Your task to perform on an android device: Search for usb-a on amazon.com, select the first entry, add it to the cart, then select checkout. Image 0: 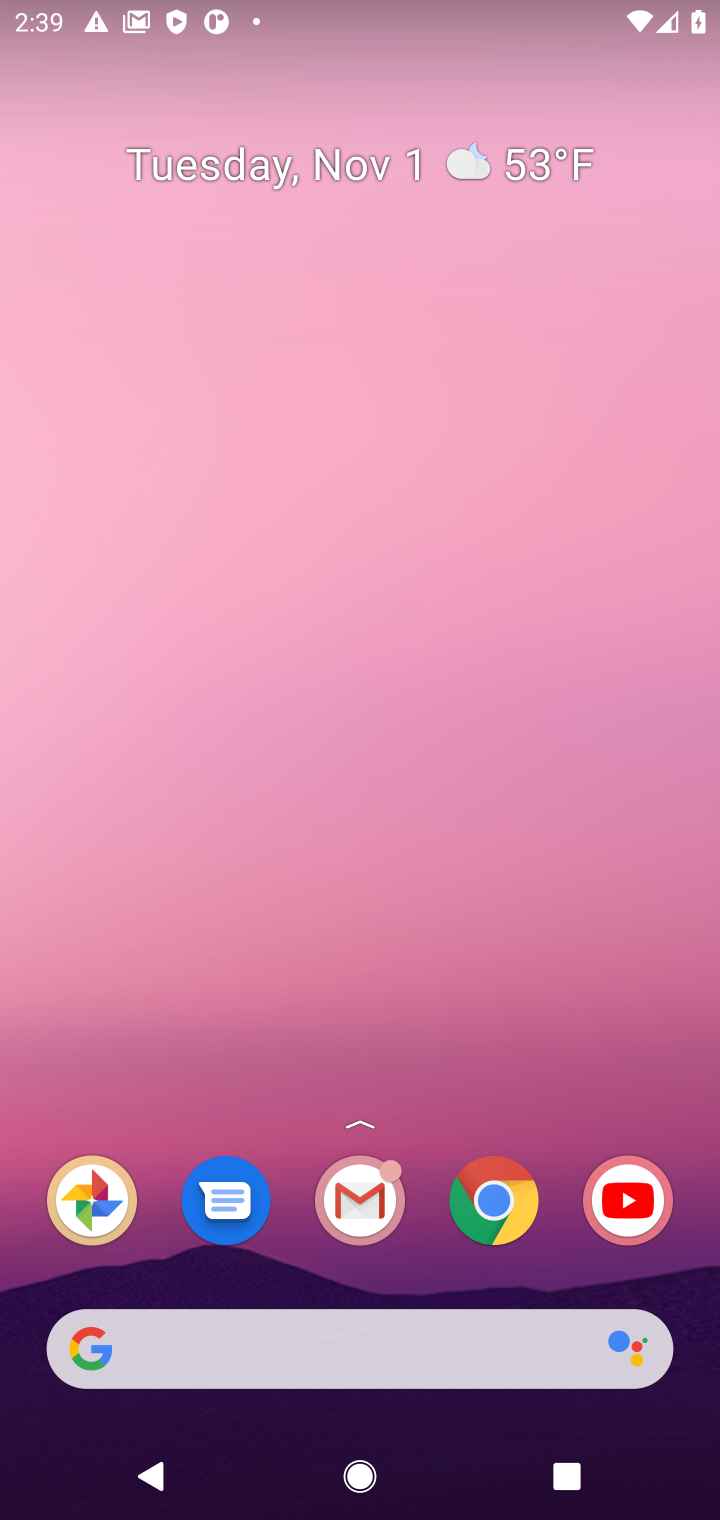
Step 0: click (88, 1342)
Your task to perform on an android device: Search for usb-a on amazon.com, select the first entry, add it to the cart, then select checkout. Image 1: 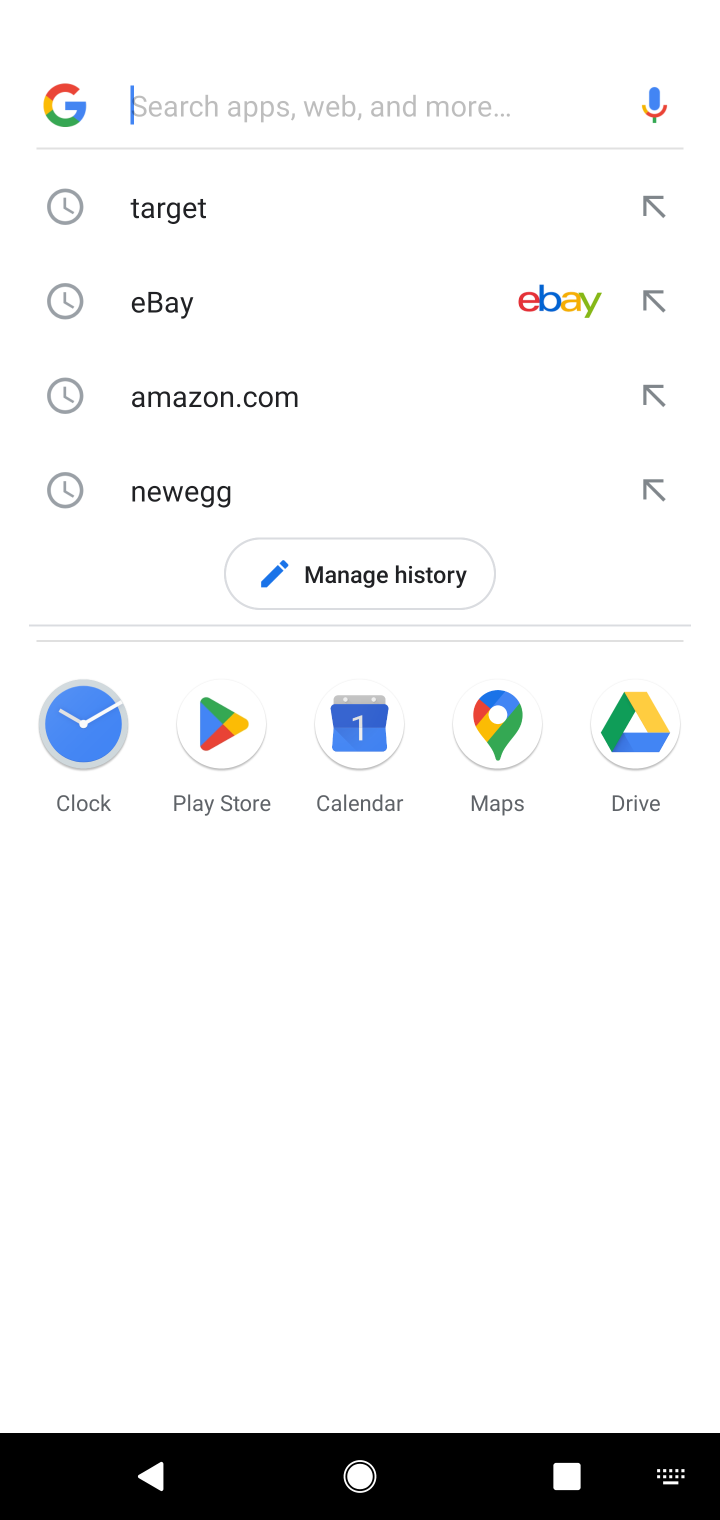
Step 1: click (187, 401)
Your task to perform on an android device: Search for usb-a on amazon.com, select the first entry, add it to the cart, then select checkout. Image 2: 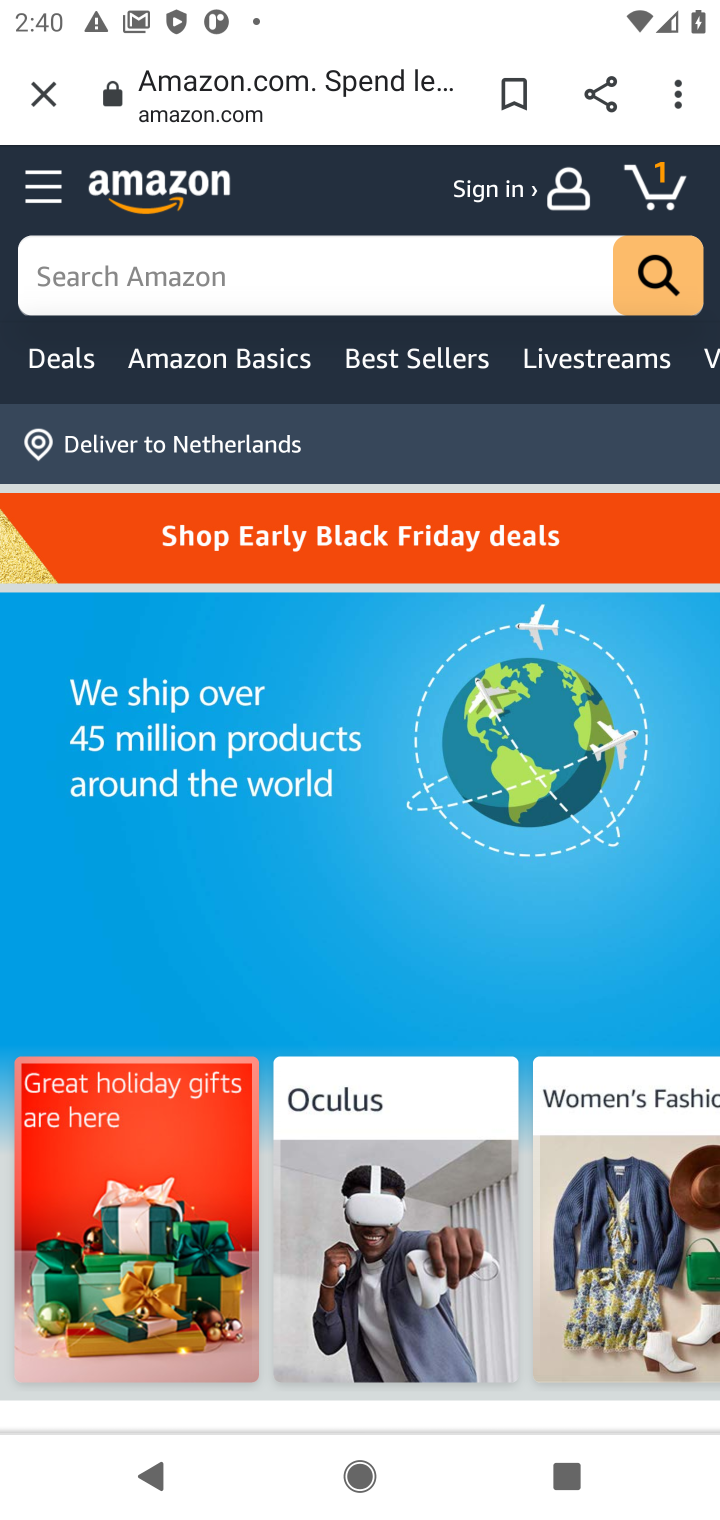
Step 2: click (316, 276)
Your task to perform on an android device: Search for usb-a on amazon.com, select the first entry, add it to the cart, then select checkout. Image 3: 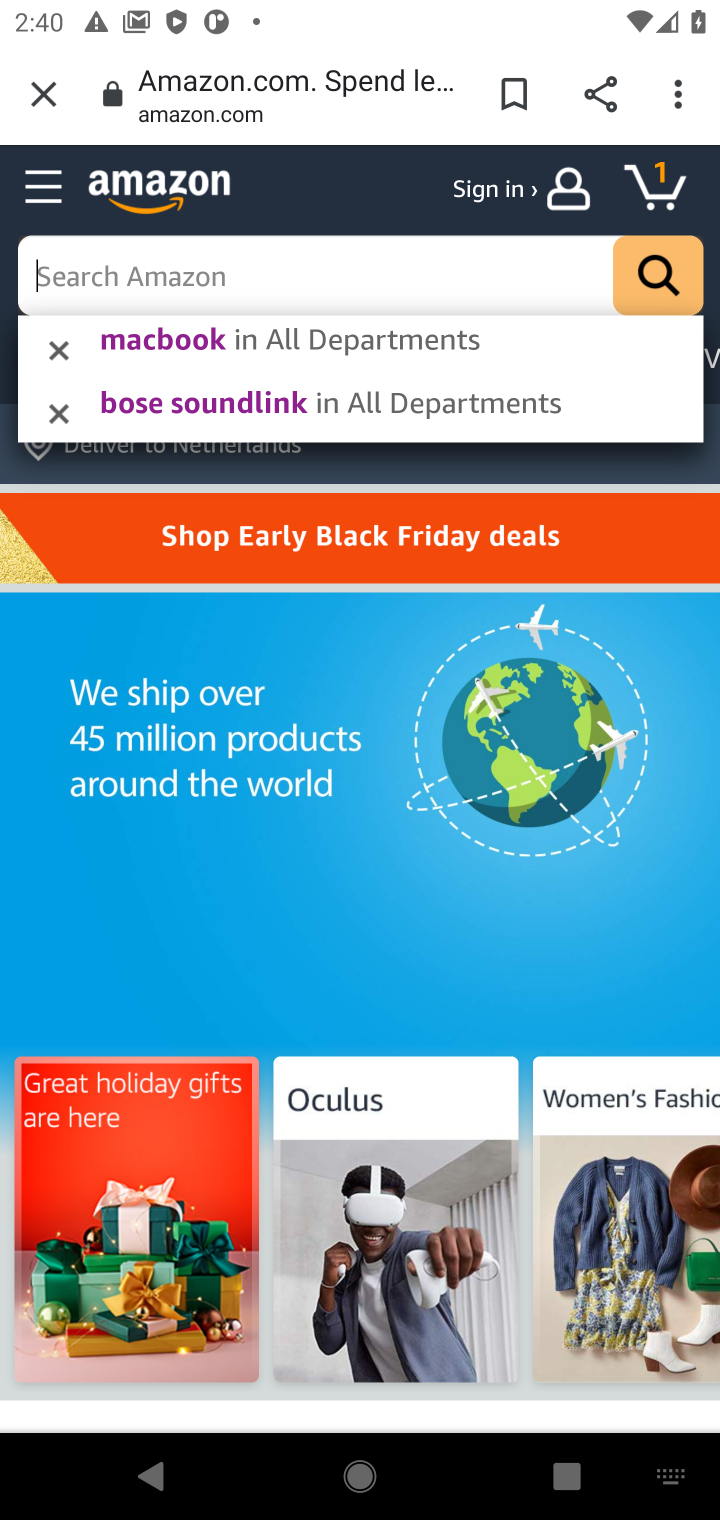
Step 3: type "usb-a"
Your task to perform on an android device: Search for usb-a on amazon.com, select the first entry, add it to the cart, then select checkout. Image 4: 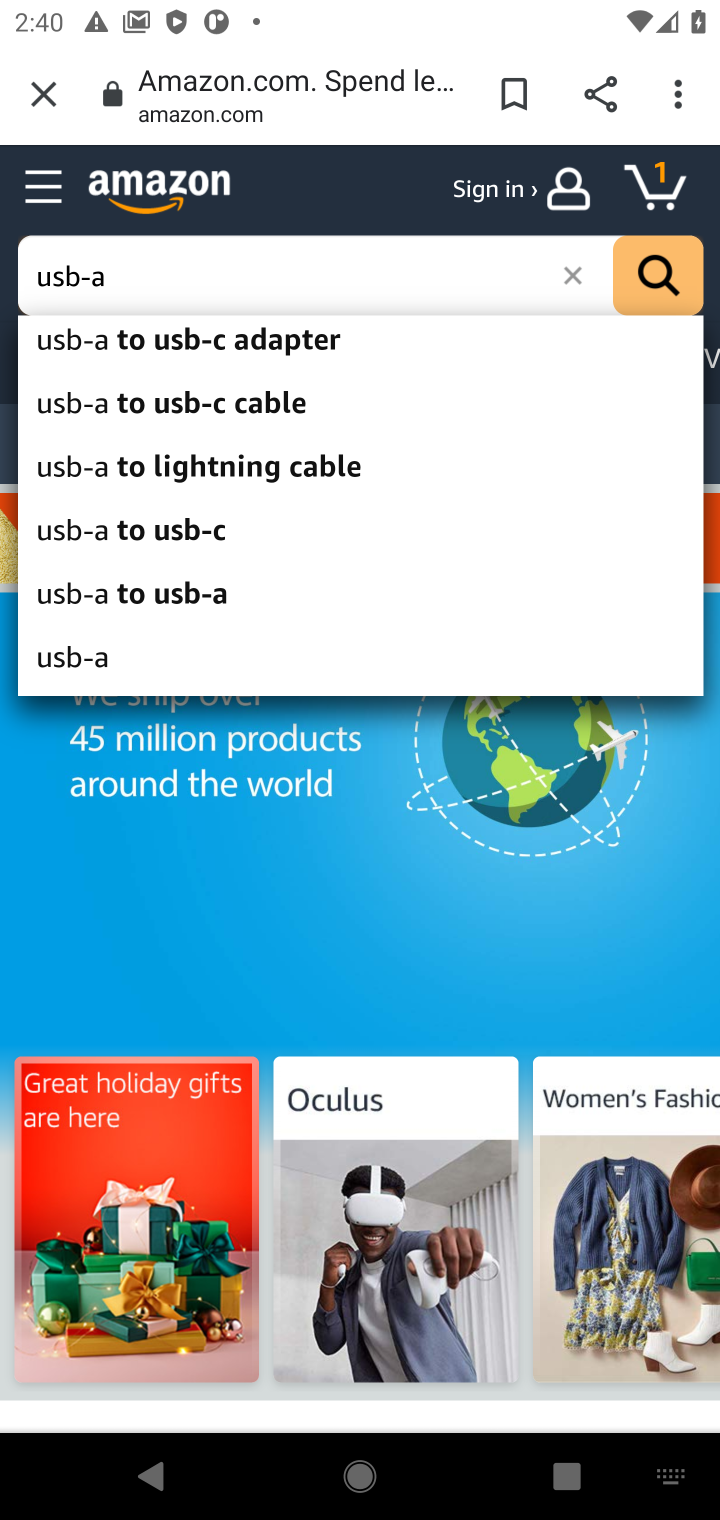
Step 4: click (297, 342)
Your task to perform on an android device: Search for usb-a on amazon.com, select the first entry, add it to the cart, then select checkout. Image 5: 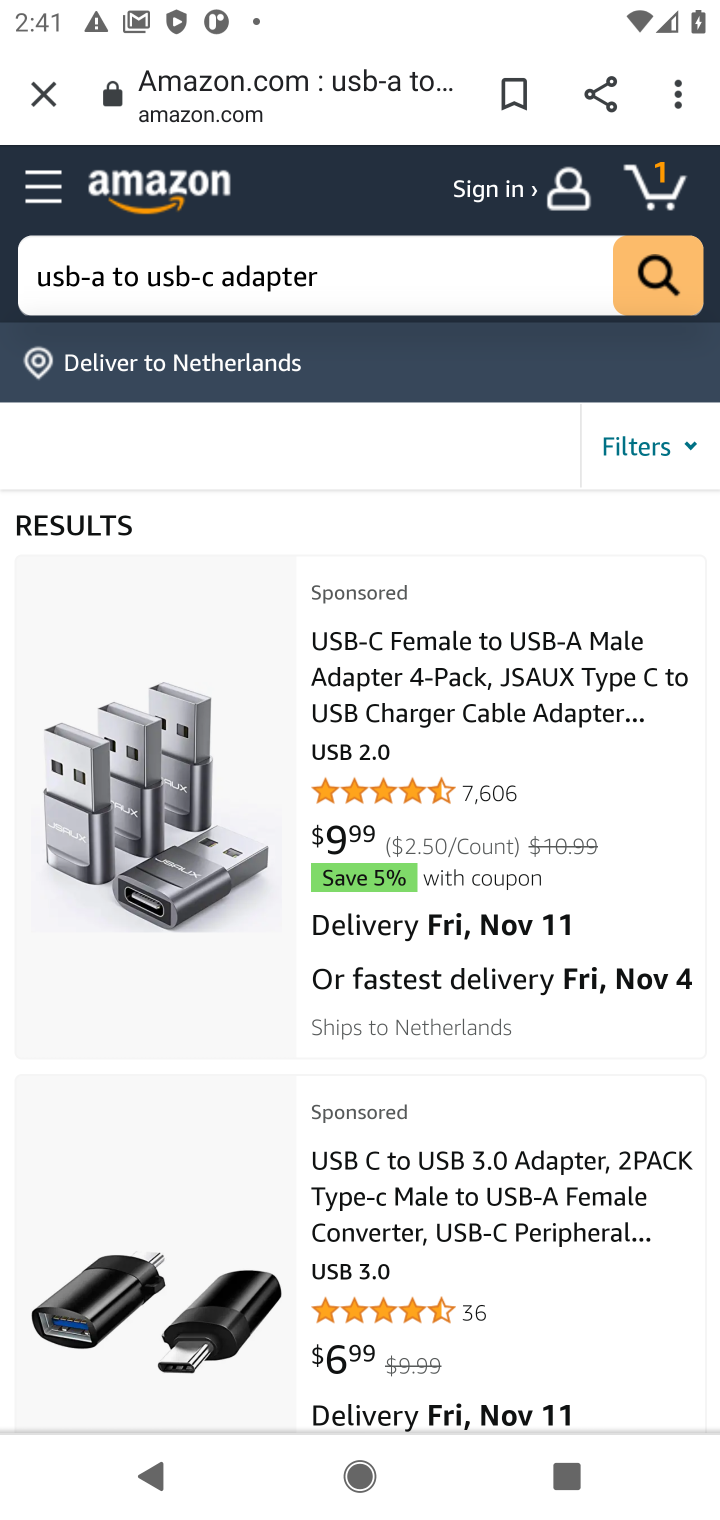
Step 5: click (192, 795)
Your task to perform on an android device: Search for usb-a on amazon.com, select the first entry, add it to the cart, then select checkout. Image 6: 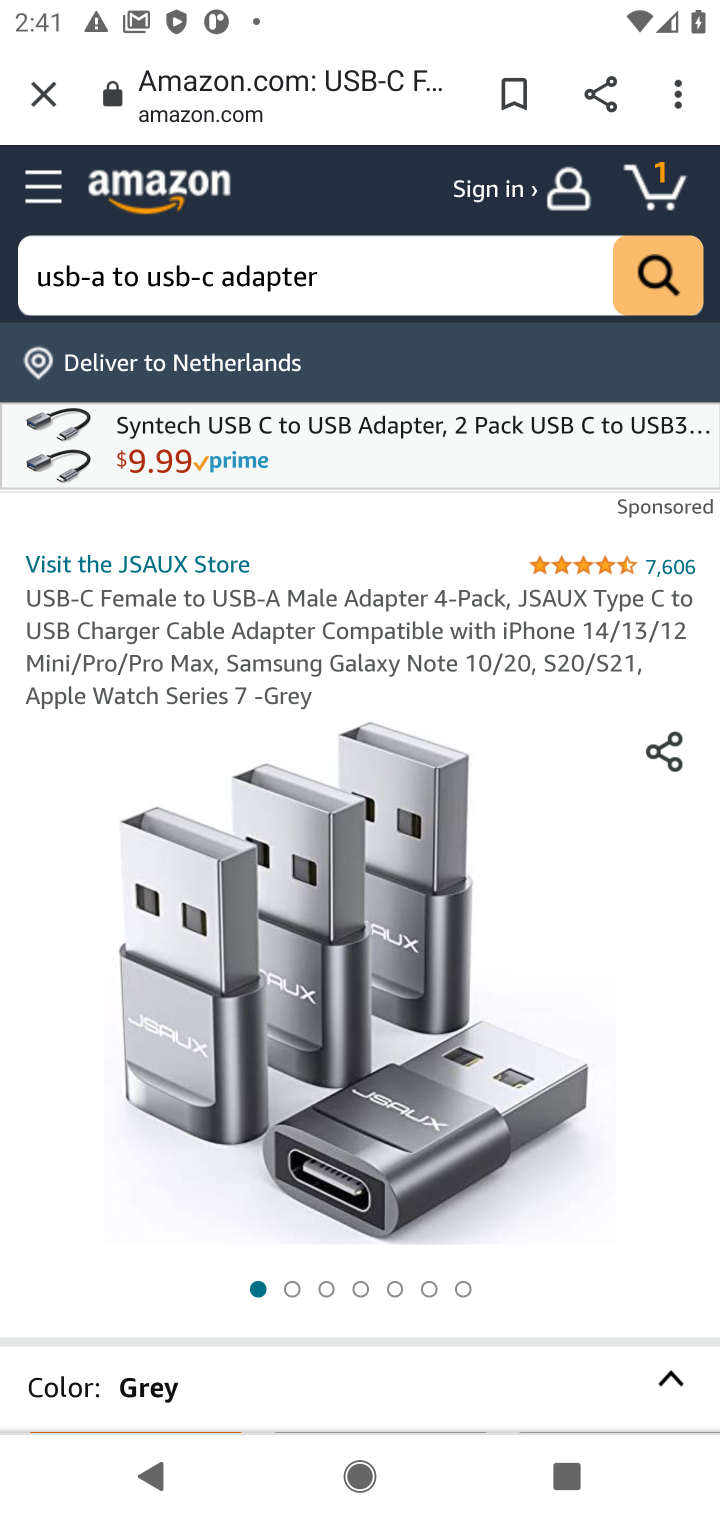
Step 6: drag from (332, 1377) to (328, 728)
Your task to perform on an android device: Search for usb-a on amazon.com, select the first entry, add it to the cart, then select checkout. Image 7: 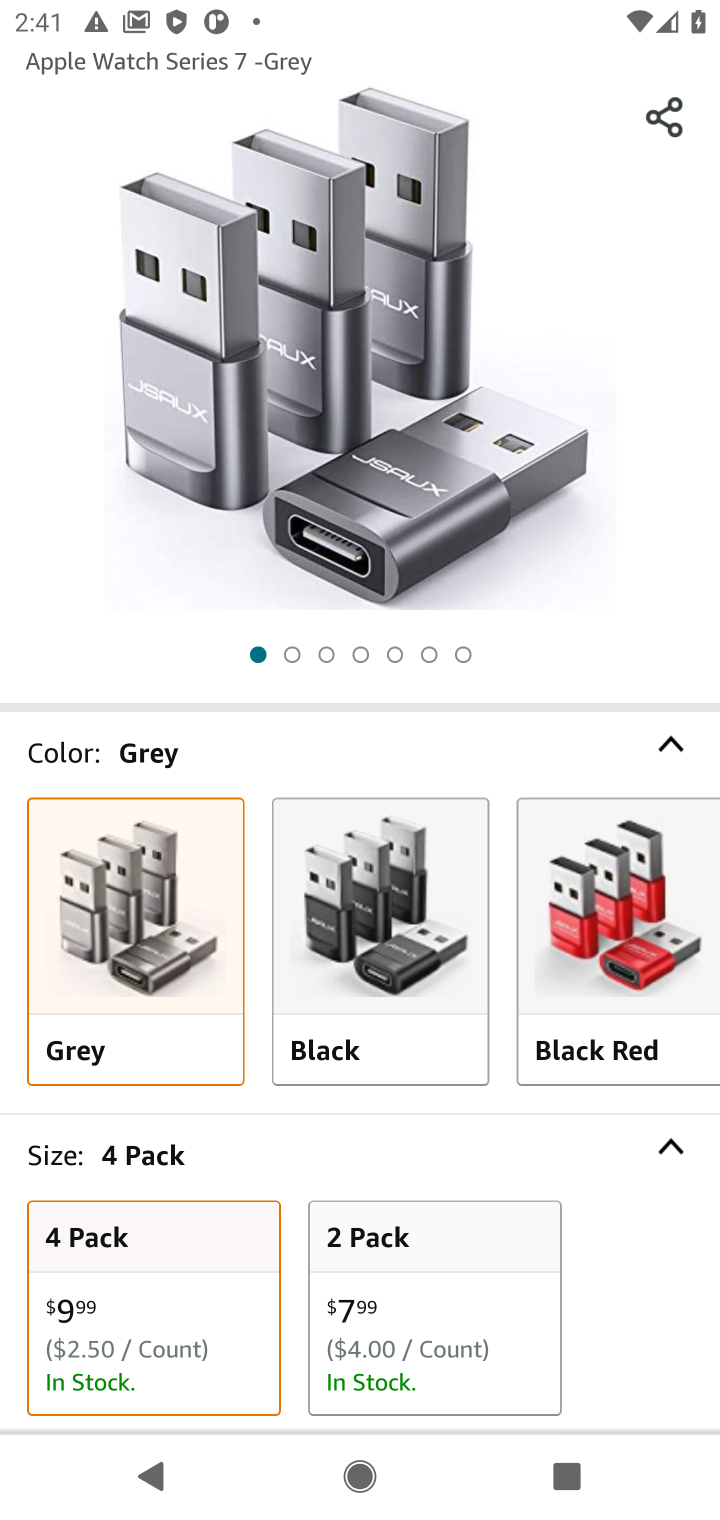
Step 7: drag from (560, 1195) to (556, 405)
Your task to perform on an android device: Search for usb-a on amazon.com, select the first entry, add it to the cart, then select checkout. Image 8: 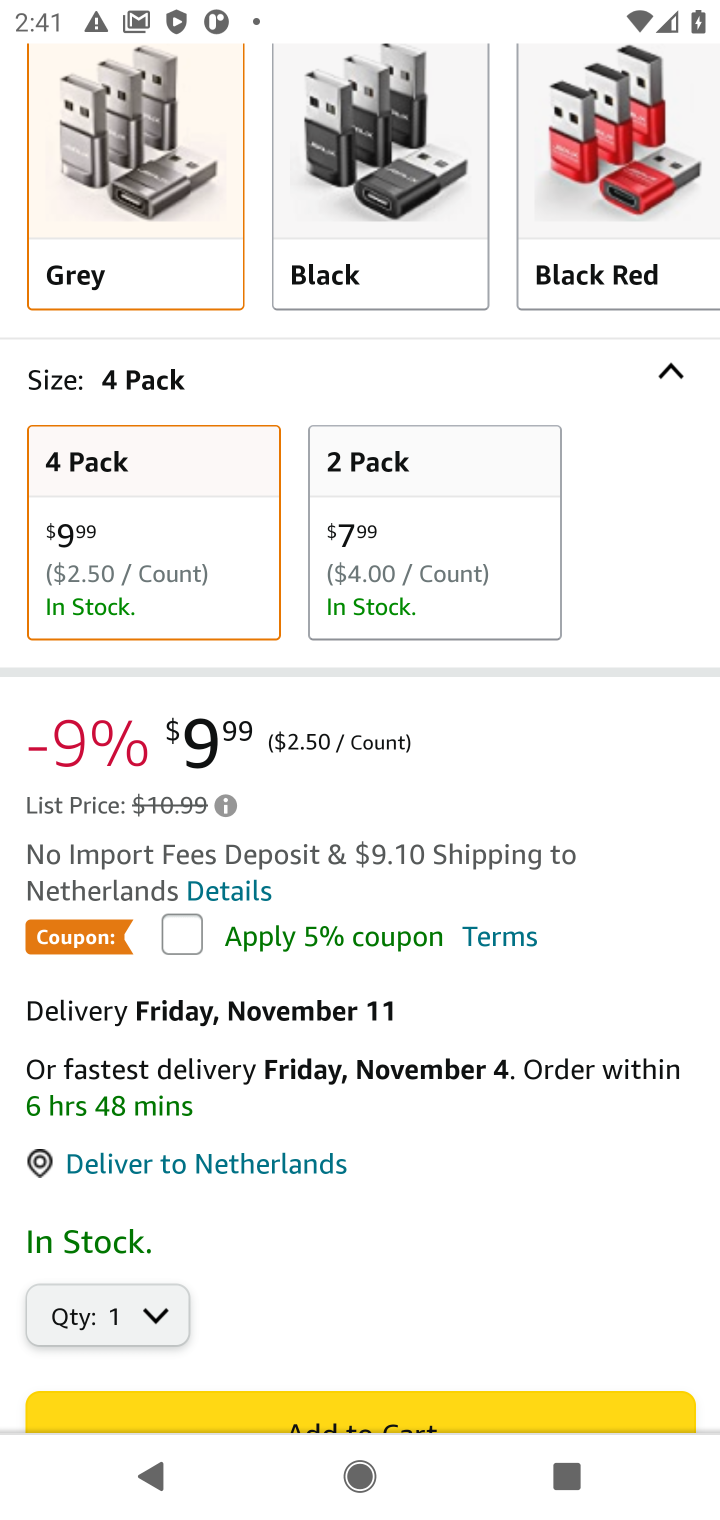
Step 8: drag from (617, 1301) to (591, 528)
Your task to perform on an android device: Search for usb-a on amazon.com, select the first entry, add it to the cart, then select checkout. Image 9: 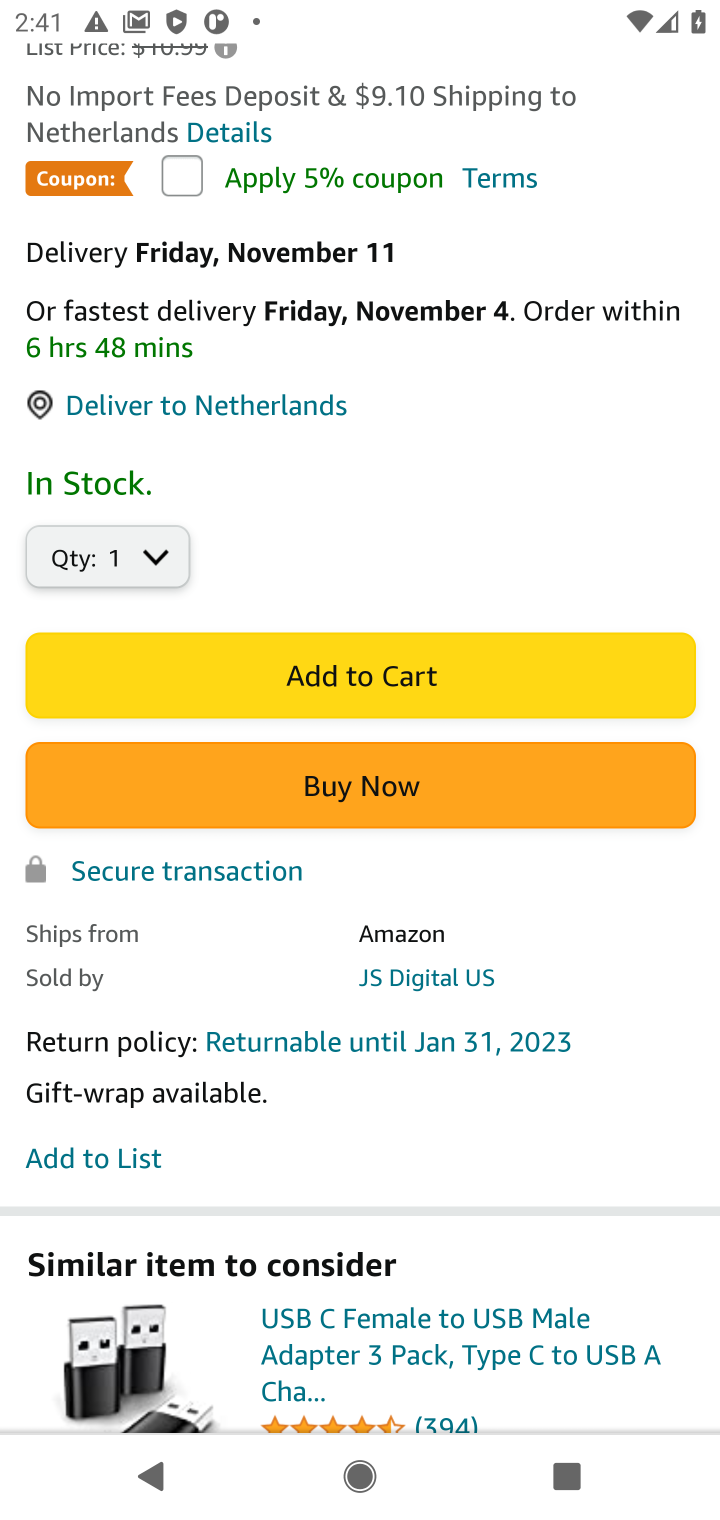
Step 9: click (354, 1033)
Your task to perform on an android device: Search for usb-a on amazon.com, select the first entry, add it to the cart, then select checkout. Image 10: 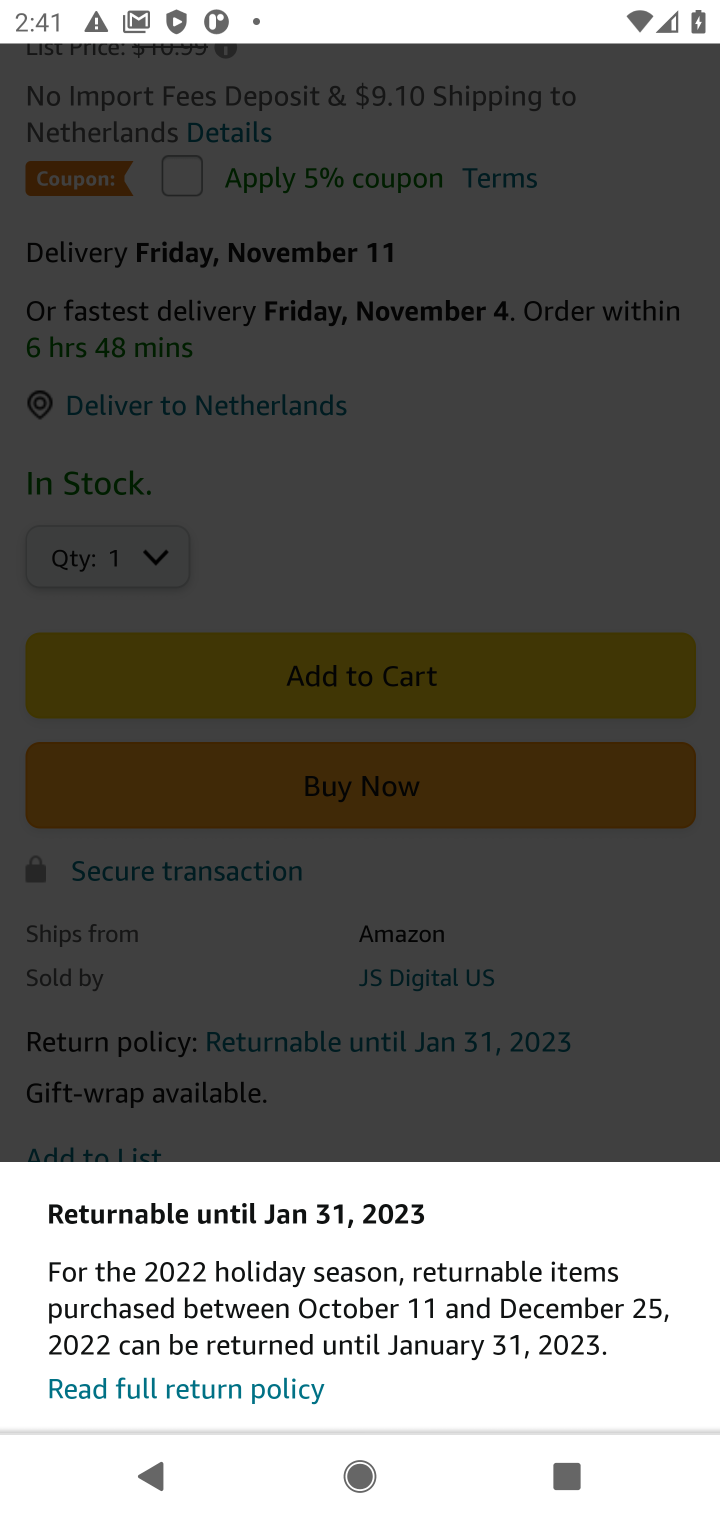
Step 10: click (543, 1075)
Your task to perform on an android device: Search for usb-a on amazon.com, select the first entry, add it to the cart, then select checkout. Image 11: 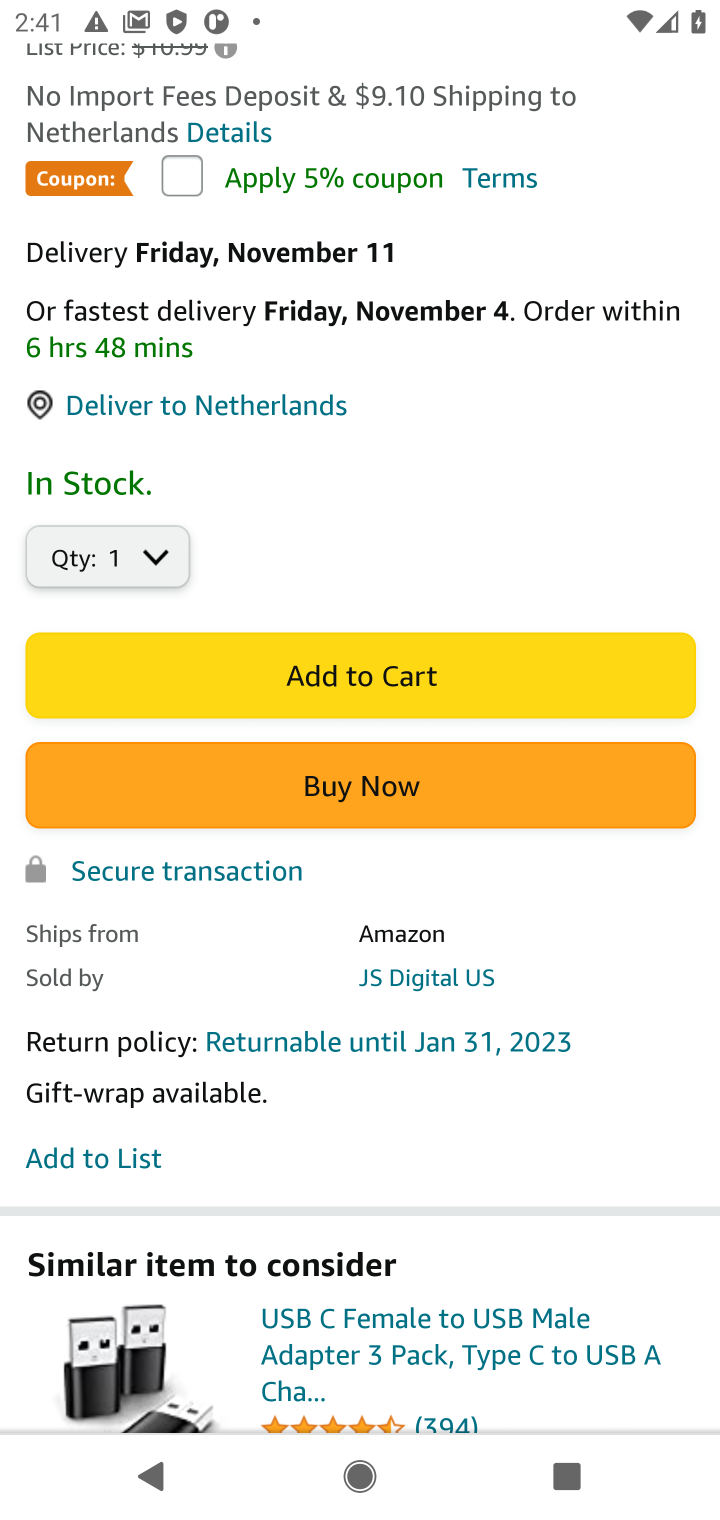
Step 11: click (363, 684)
Your task to perform on an android device: Search for usb-a on amazon.com, select the first entry, add it to the cart, then select checkout. Image 12: 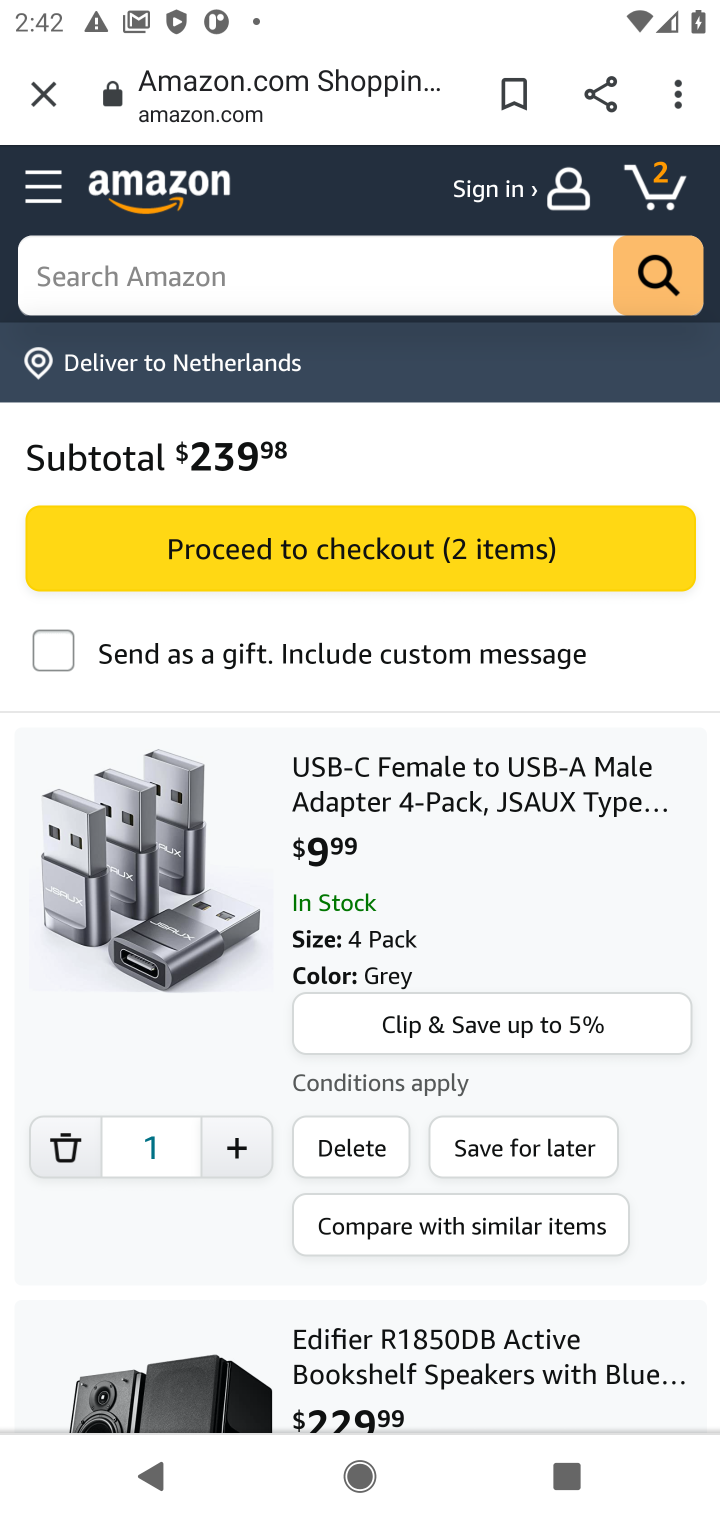
Step 12: click (339, 549)
Your task to perform on an android device: Search for usb-a on amazon.com, select the first entry, add it to the cart, then select checkout. Image 13: 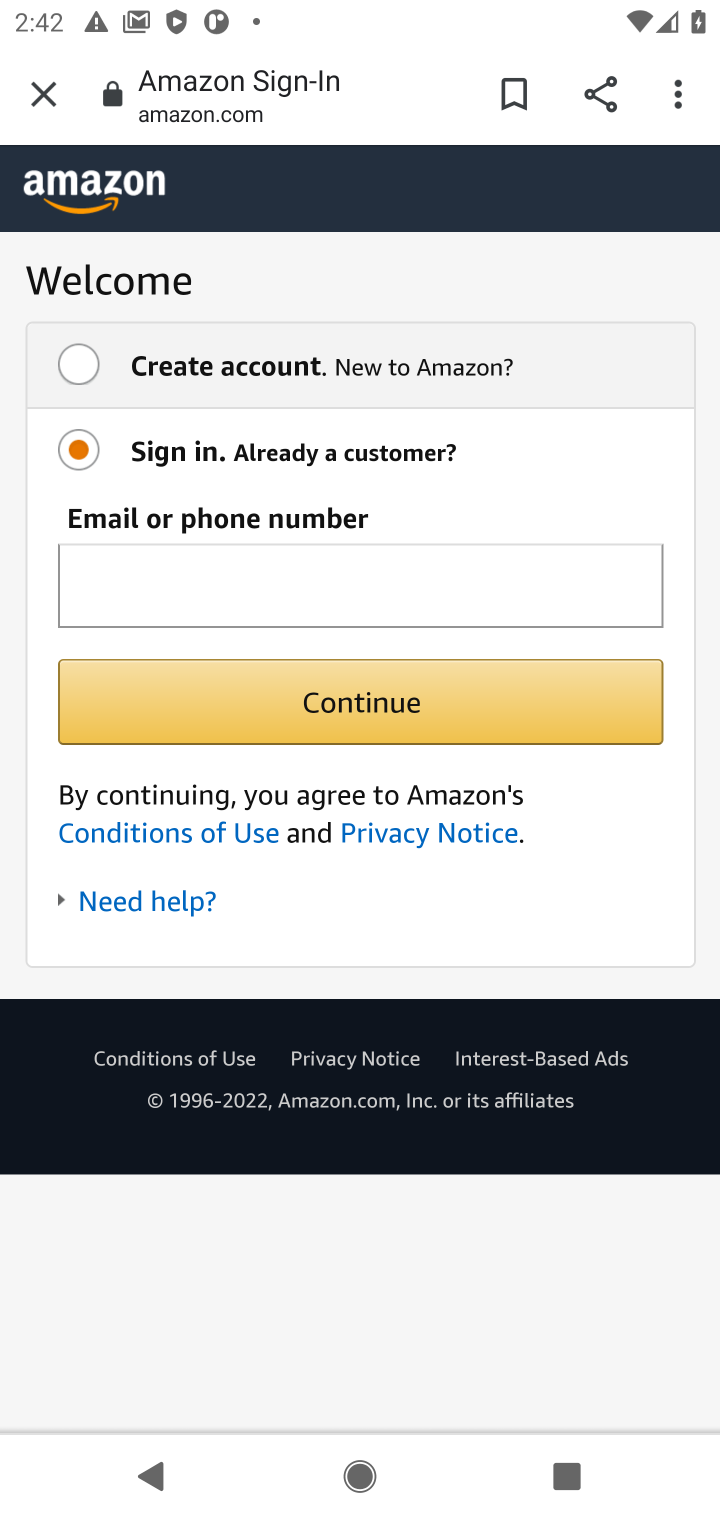
Step 13: click (339, 552)
Your task to perform on an android device: Search for usb-a on amazon.com, select the first entry, add it to the cart, then select checkout. Image 14: 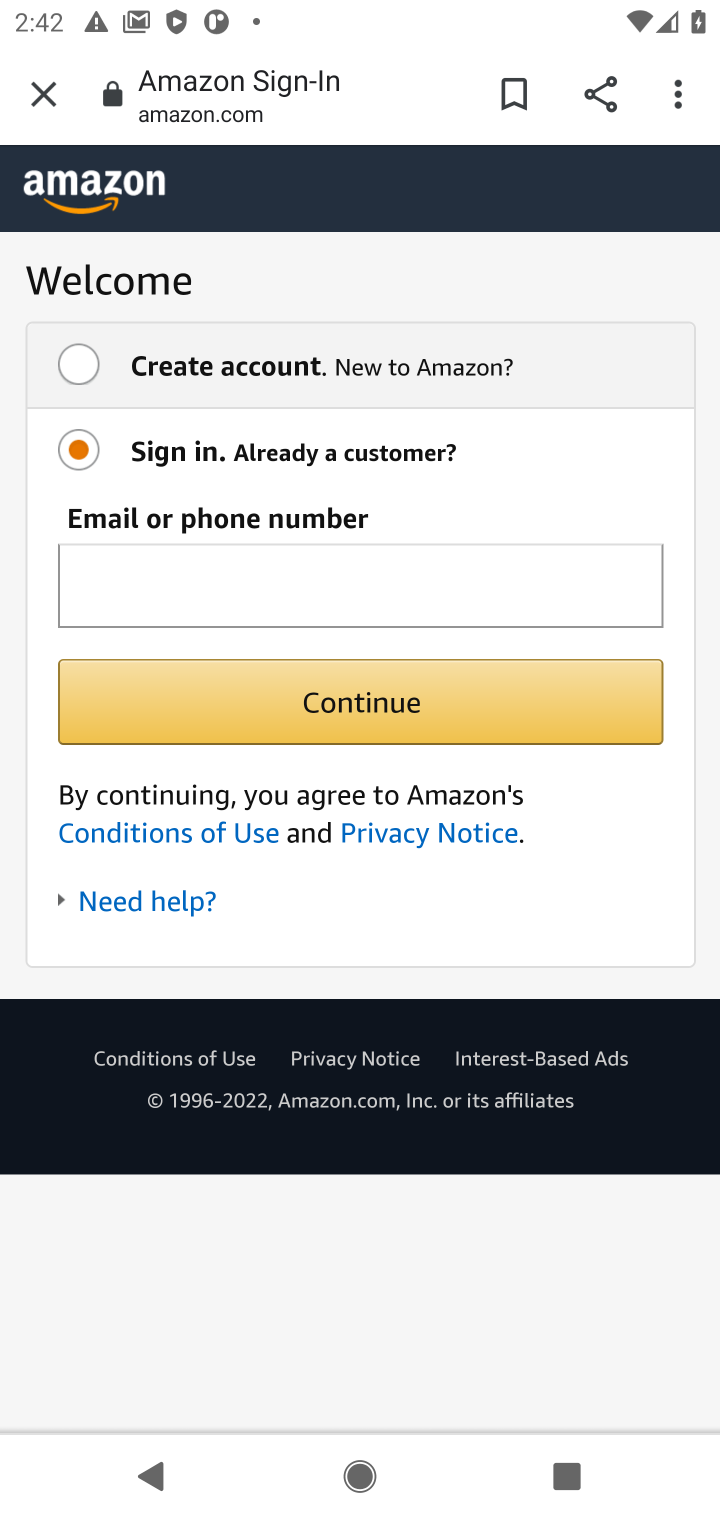
Step 14: click (339, 552)
Your task to perform on an android device: Search for usb-a on amazon.com, select the first entry, add it to the cart, then select checkout. Image 15: 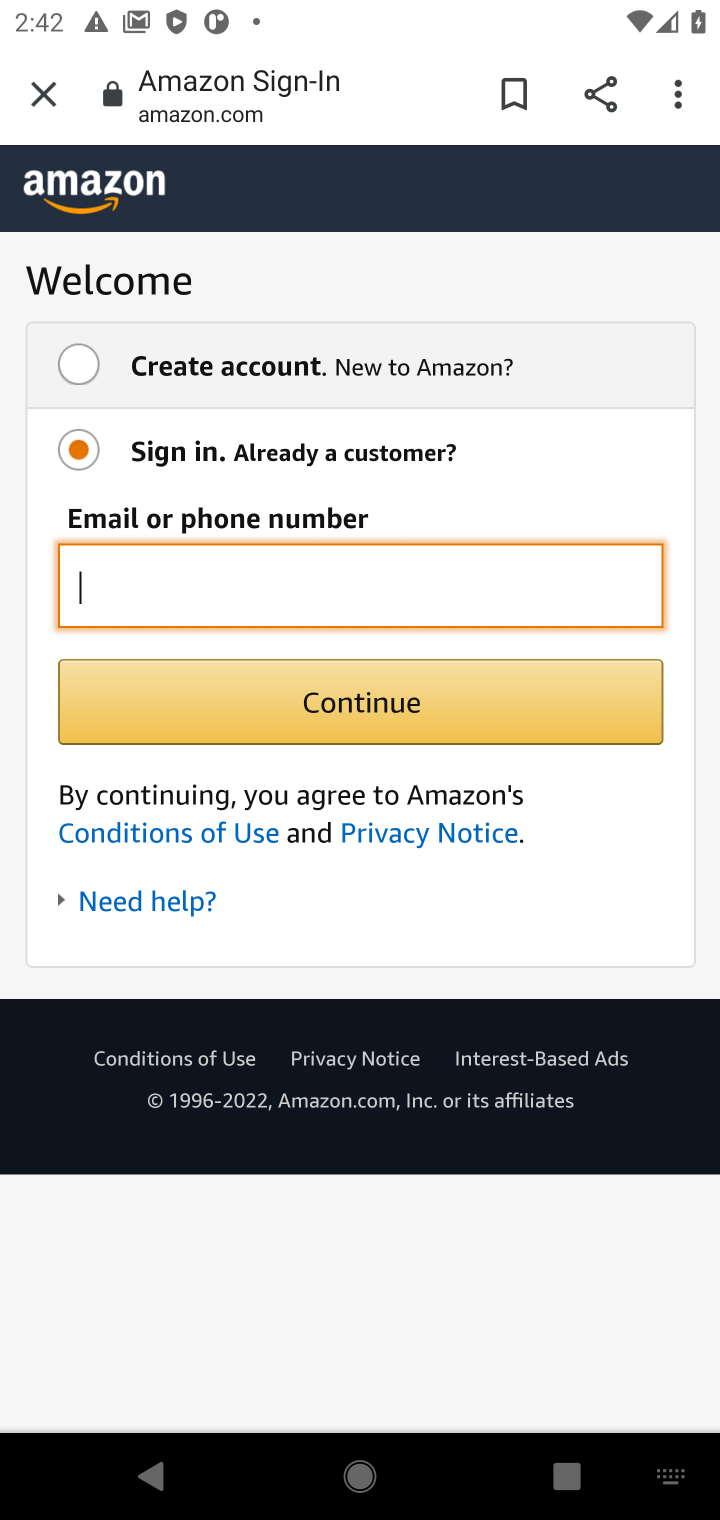
Step 15: task complete